Your task to perform on an android device: Toggle the flashlight Image 0: 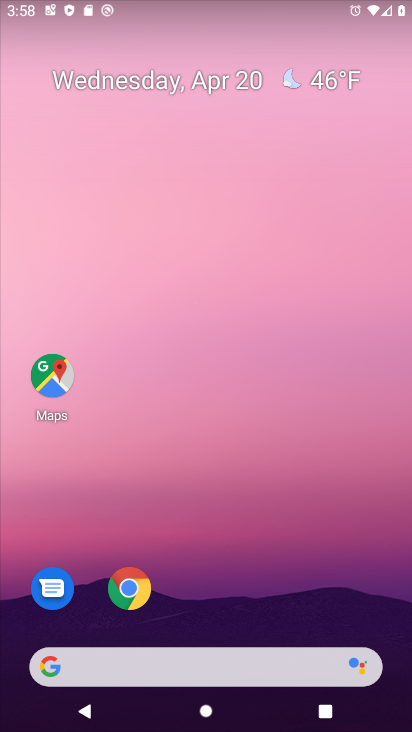
Step 0: task impossible